Your task to perform on an android device: Do I have any events this weekend? Image 0: 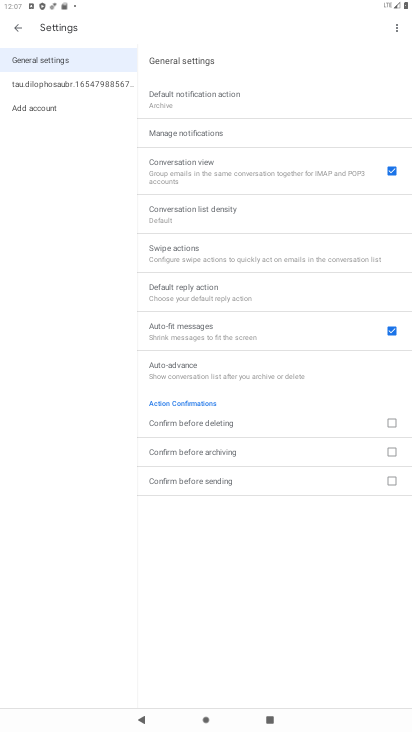
Step 0: press home button
Your task to perform on an android device: Do I have any events this weekend? Image 1: 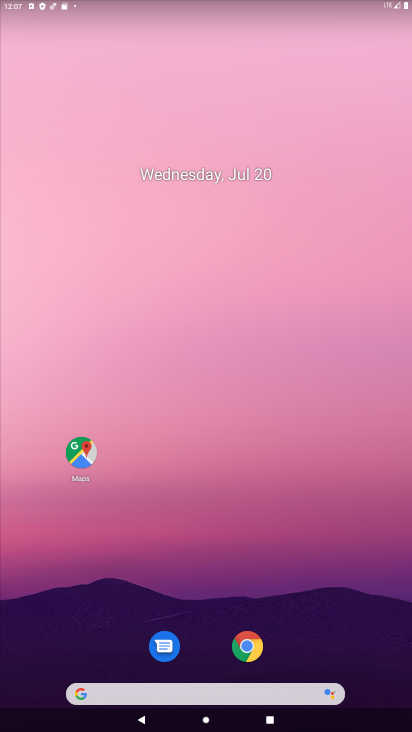
Step 1: click (200, 174)
Your task to perform on an android device: Do I have any events this weekend? Image 2: 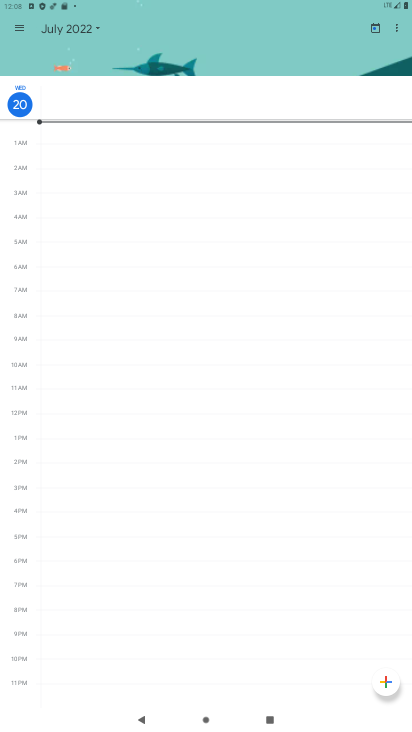
Step 2: click (24, 37)
Your task to perform on an android device: Do I have any events this weekend? Image 3: 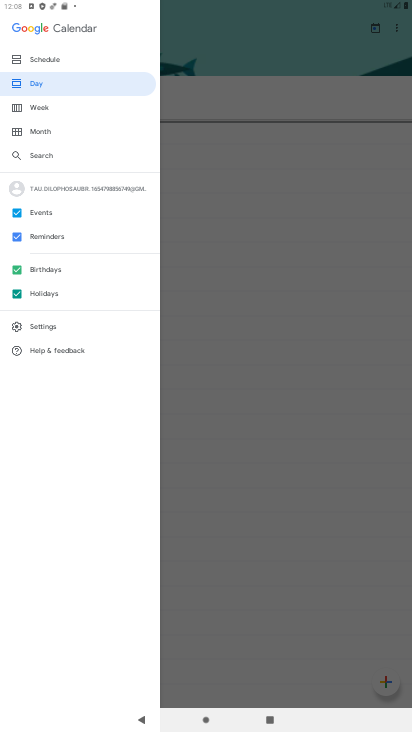
Step 3: click (13, 234)
Your task to perform on an android device: Do I have any events this weekend? Image 4: 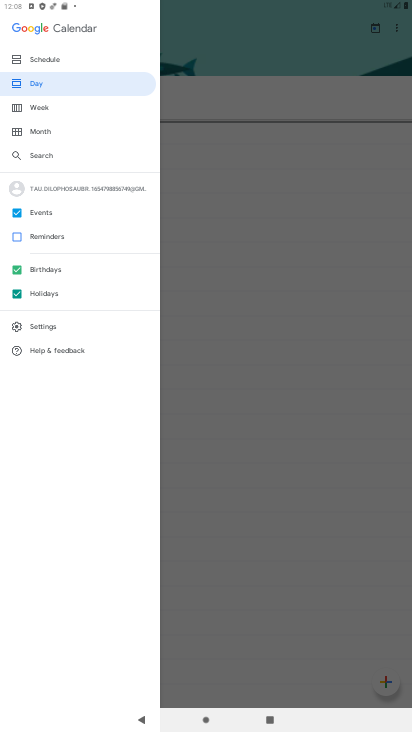
Step 4: click (12, 273)
Your task to perform on an android device: Do I have any events this weekend? Image 5: 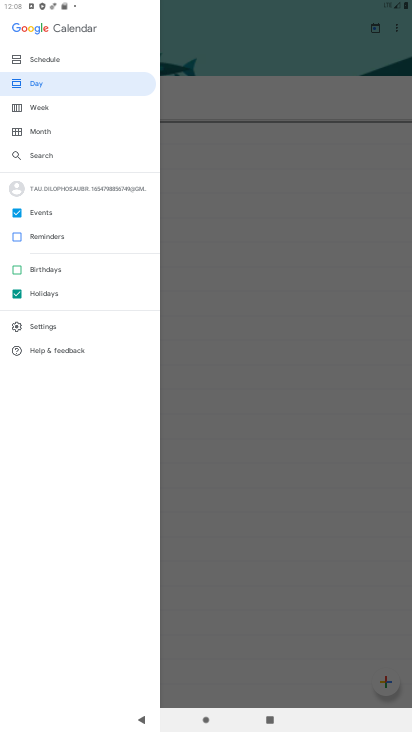
Step 5: click (14, 292)
Your task to perform on an android device: Do I have any events this weekend? Image 6: 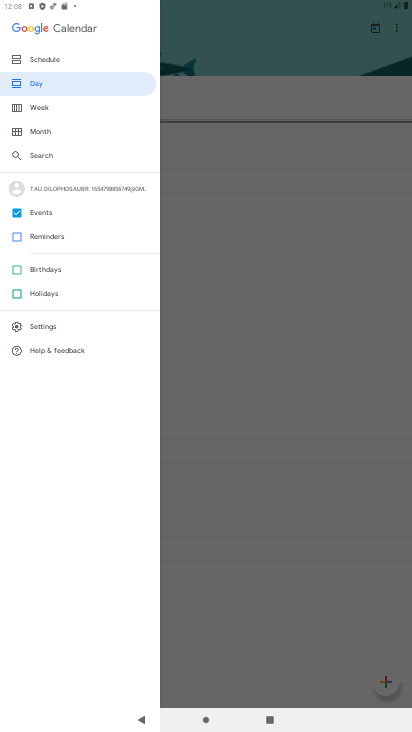
Step 6: click (39, 107)
Your task to perform on an android device: Do I have any events this weekend? Image 7: 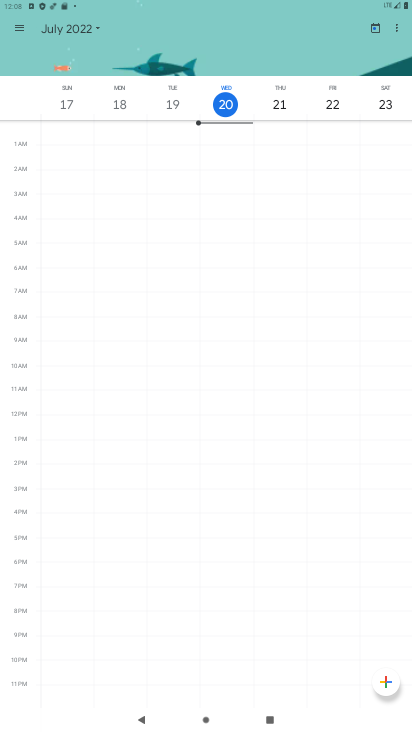
Step 7: click (375, 101)
Your task to perform on an android device: Do I have any events this weekend? Image 8: 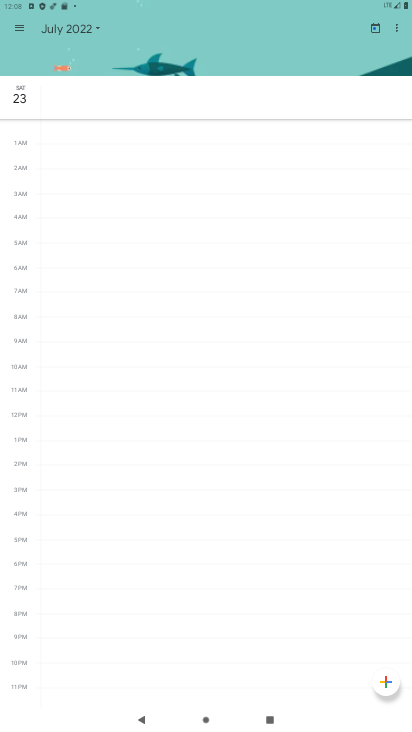
Step 8: task complete